Your task to perform on an android device: Open Amazon Image 0: 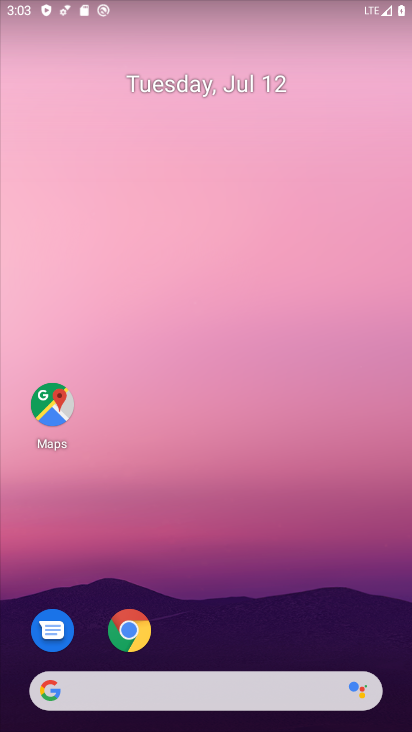
Step 0: drag from (299, 697) to (241, 0)
Your task to perform on an android device: Open Amazon Image 1: 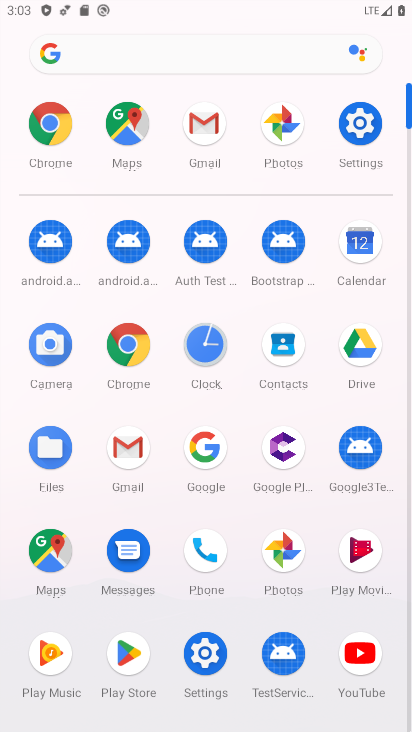
Step 1: click (135, 348)
Your task to perform on an android device: Open Amazon Image 2: 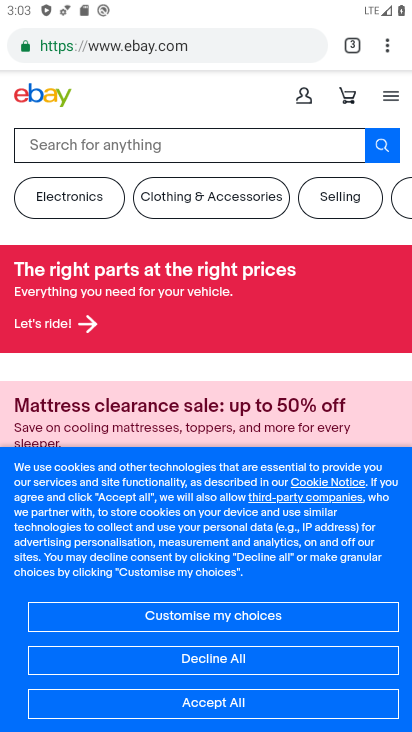
Step 2: drag from (389, 44) to (334, 73)
Your task to perform on an android device: Open Amazon Image 3: 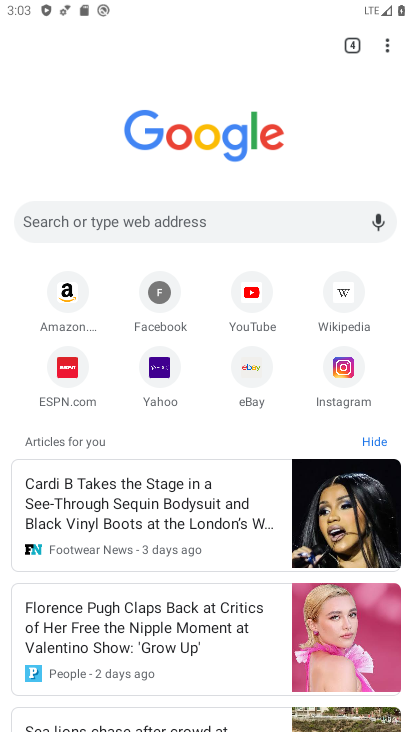
Step 3: click (72, 303)
Your task to perform on an android device: Open Amazon Image 4: 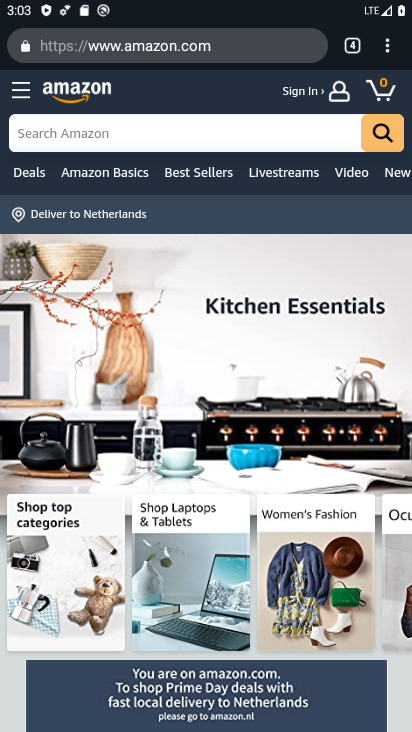
Step 4: task complete